Your task to perform on an android device: toggle wifi Image 0: 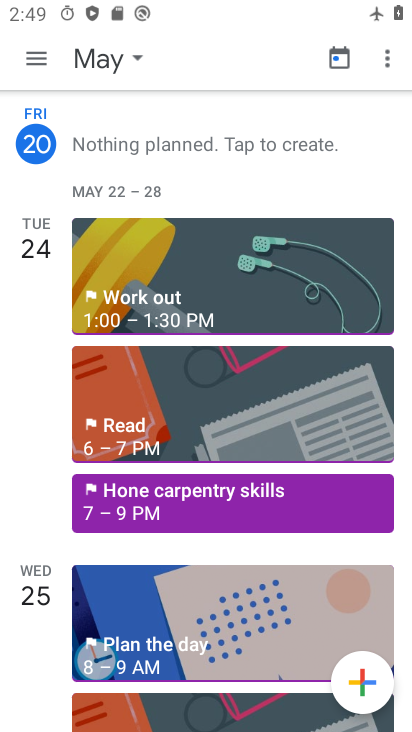
Step 0: press back button
Your task to perform on an android device: toggle wifi Image 1: 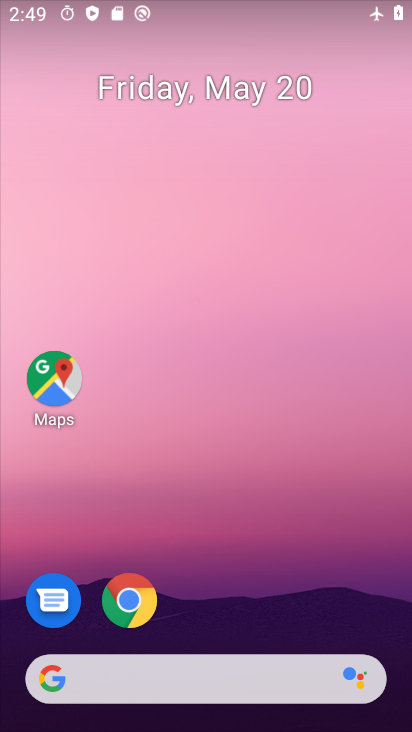
Step 1: drag from (276, 477) to (271, 27)
Your task to perform on an android device: toggle wifi Image 2: 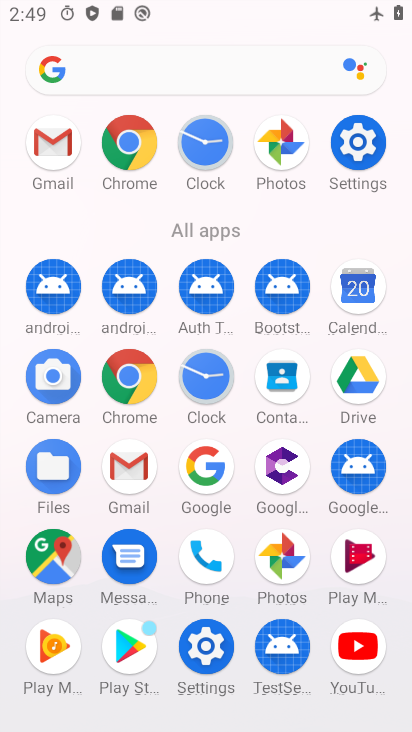
Step 2: drag from (3, 520) to (21, 225)
Your task to perform on an android device: toggle wifi Image 3: 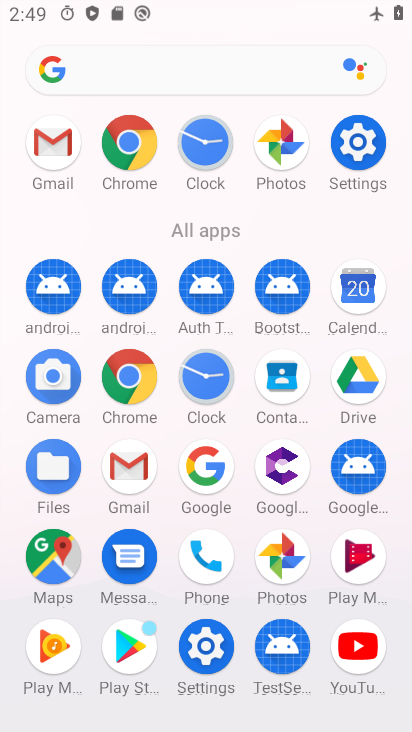
Step 3: click (201, 638)
Your task to perform on an android device: toggle wifi Image 4: 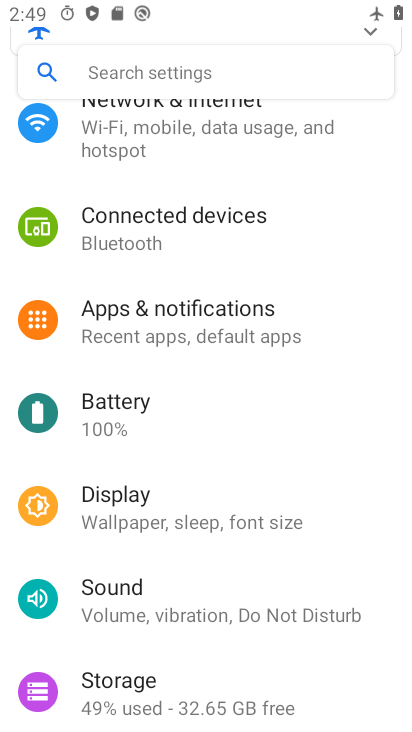
Step 4: drag from (250, 188) to (281, 564)
Your task to perform on an android device: toggle wifi Image 5: 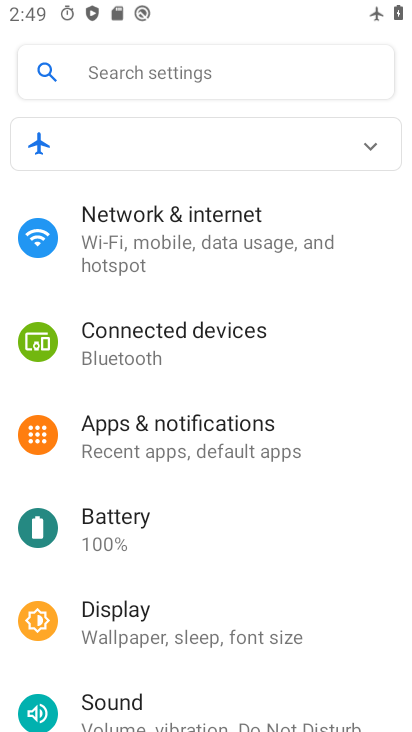
Step 5: click (227, 261)
Your task to perform on an android device: toggle wifi Image 6: 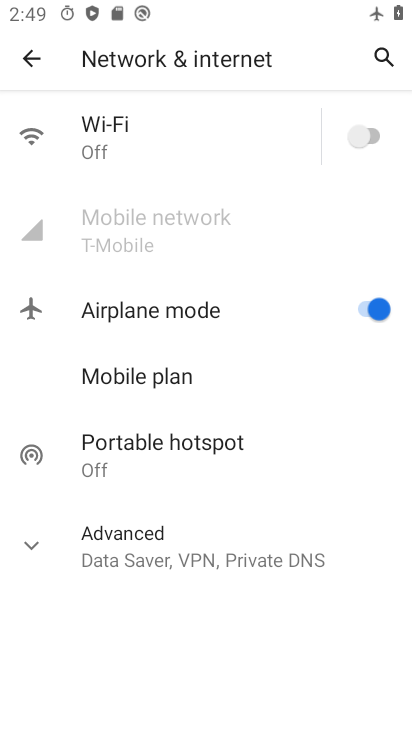
Step 6: click (30, 540)
Your task to perform on an android device: toggle wifi Image 7: 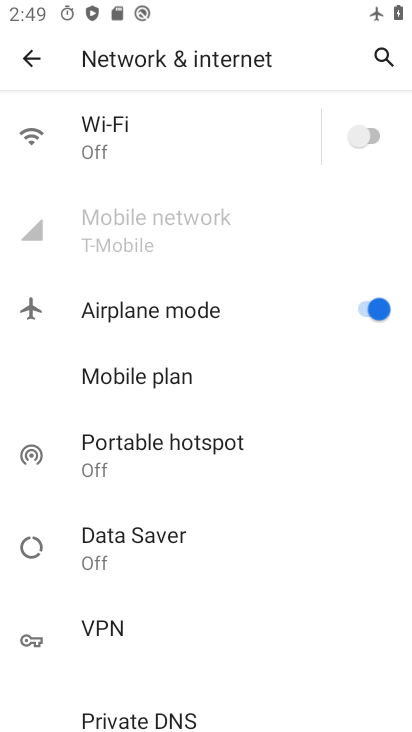
Step 7: click (365, 131)
Your task to perform on an android device: toggle wifi Image 8: 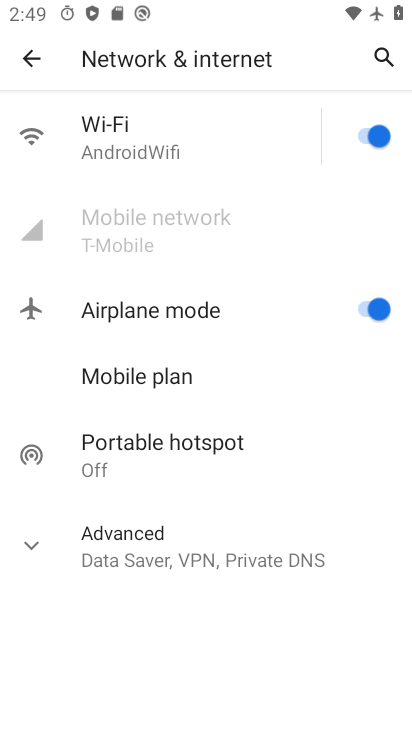
Step 8: task complete